Your task to perform on an android device: Go to Google Image 0: 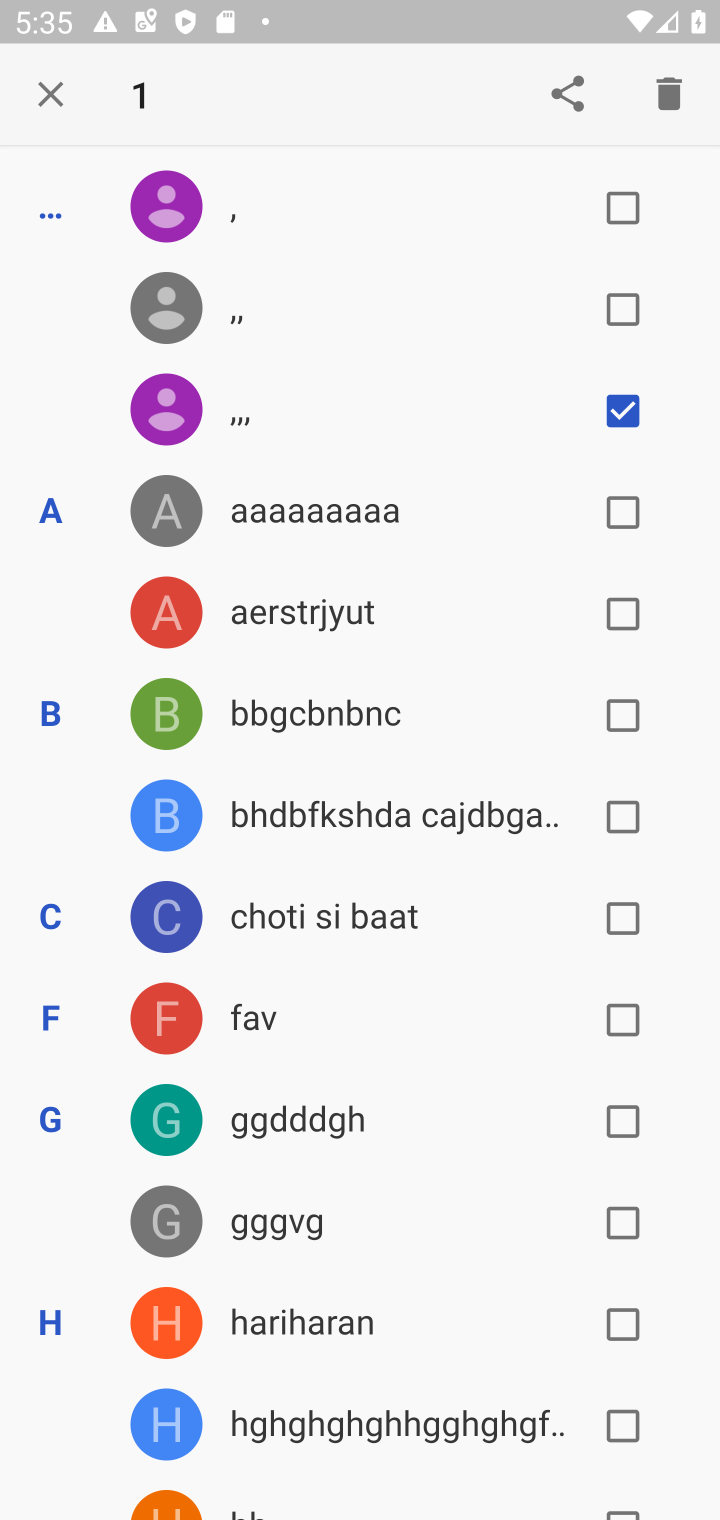
Step 0: press home button
Your task to perform on an android device: Go to Google Image 1: 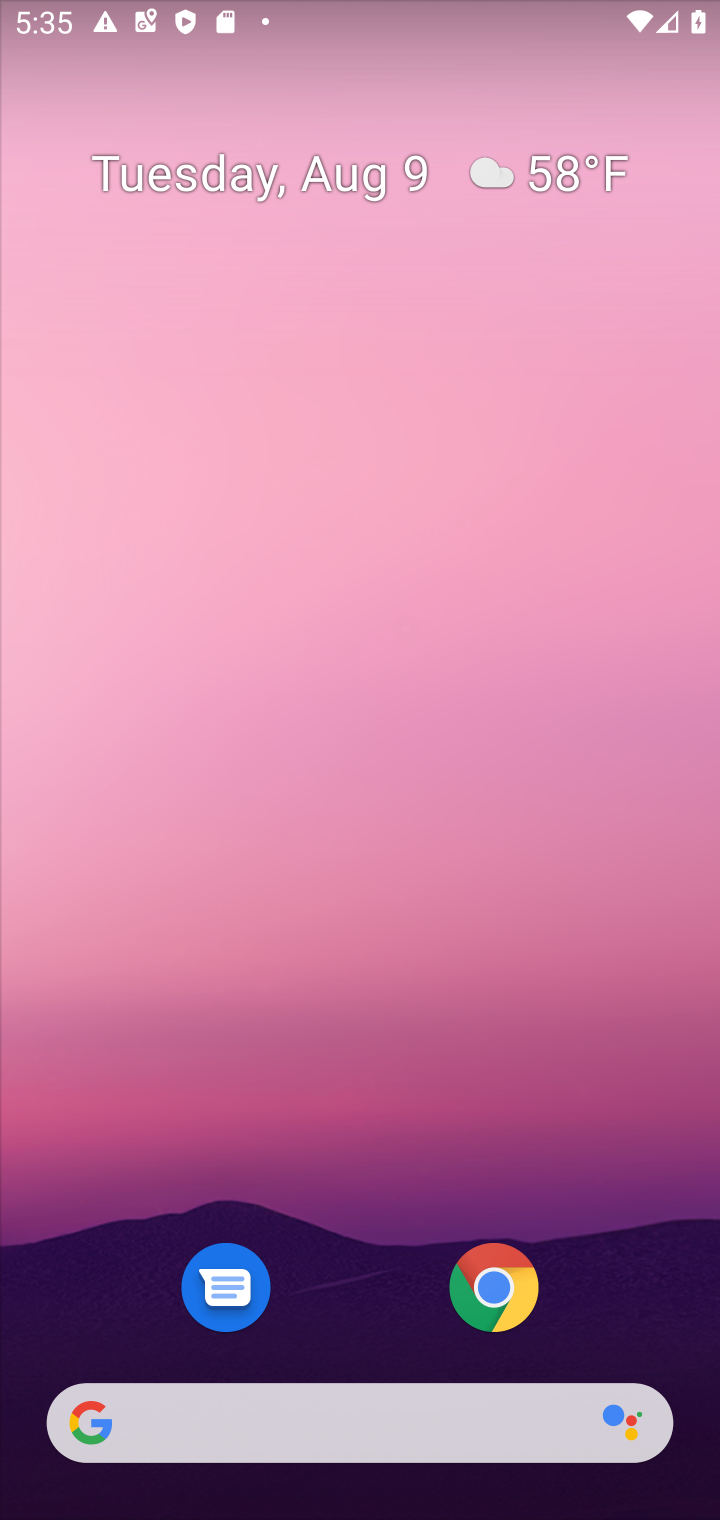
Step 1: click (319, 1437)
Your task to perform on an android device: Go to Google Image 2: 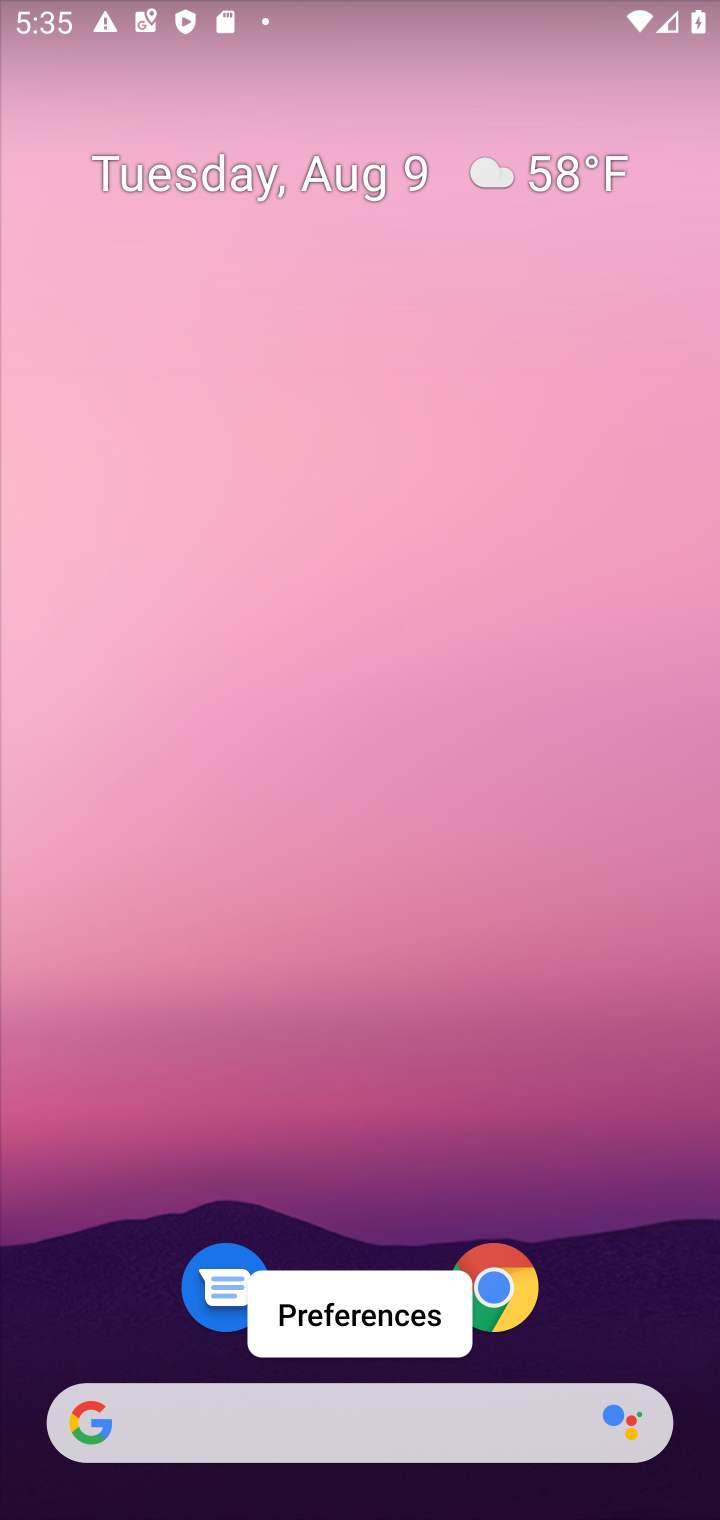
Step 2: click (525, 1440)
Your task to perform on an android device: Go to Google Image 3: 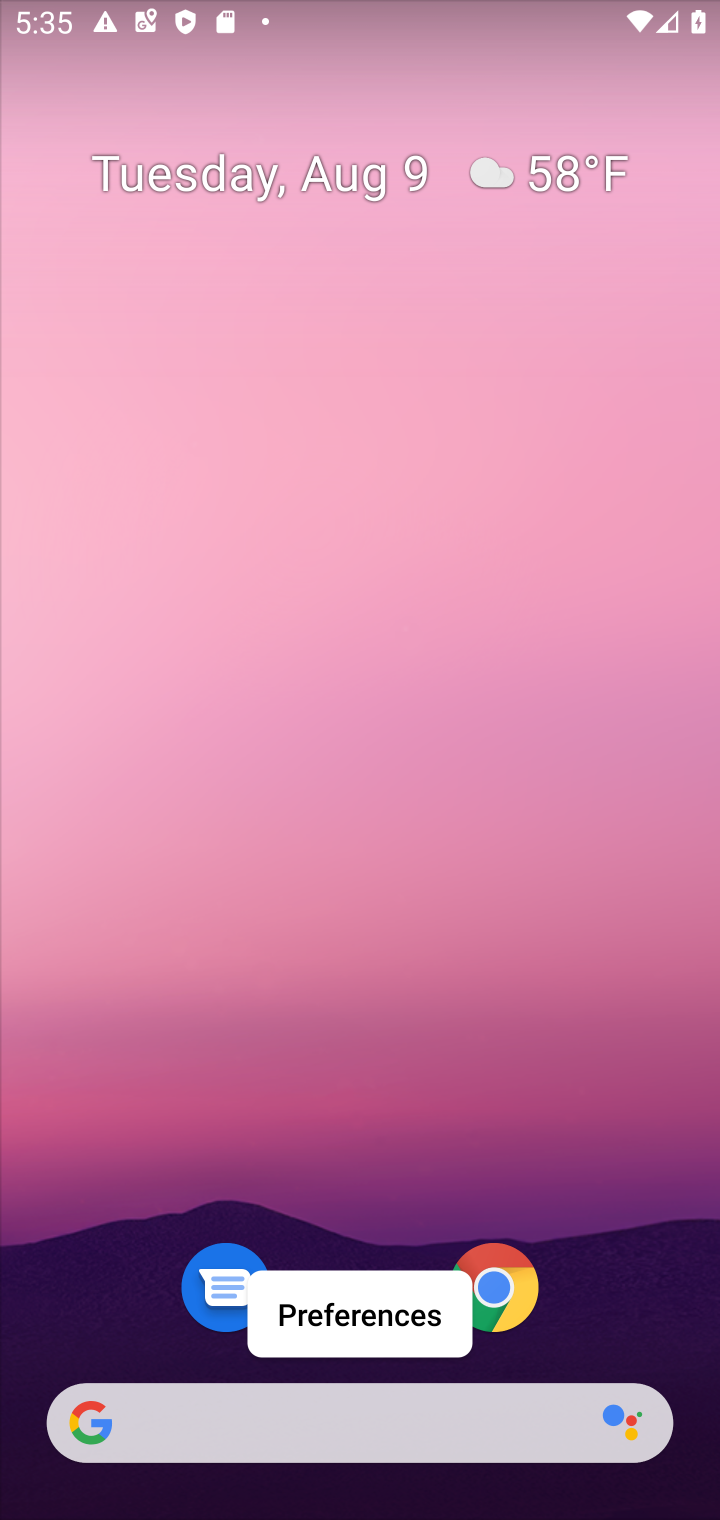
Step 3: click (479, 1410)
Your task to perform on an android device: Go to Google Image 4: 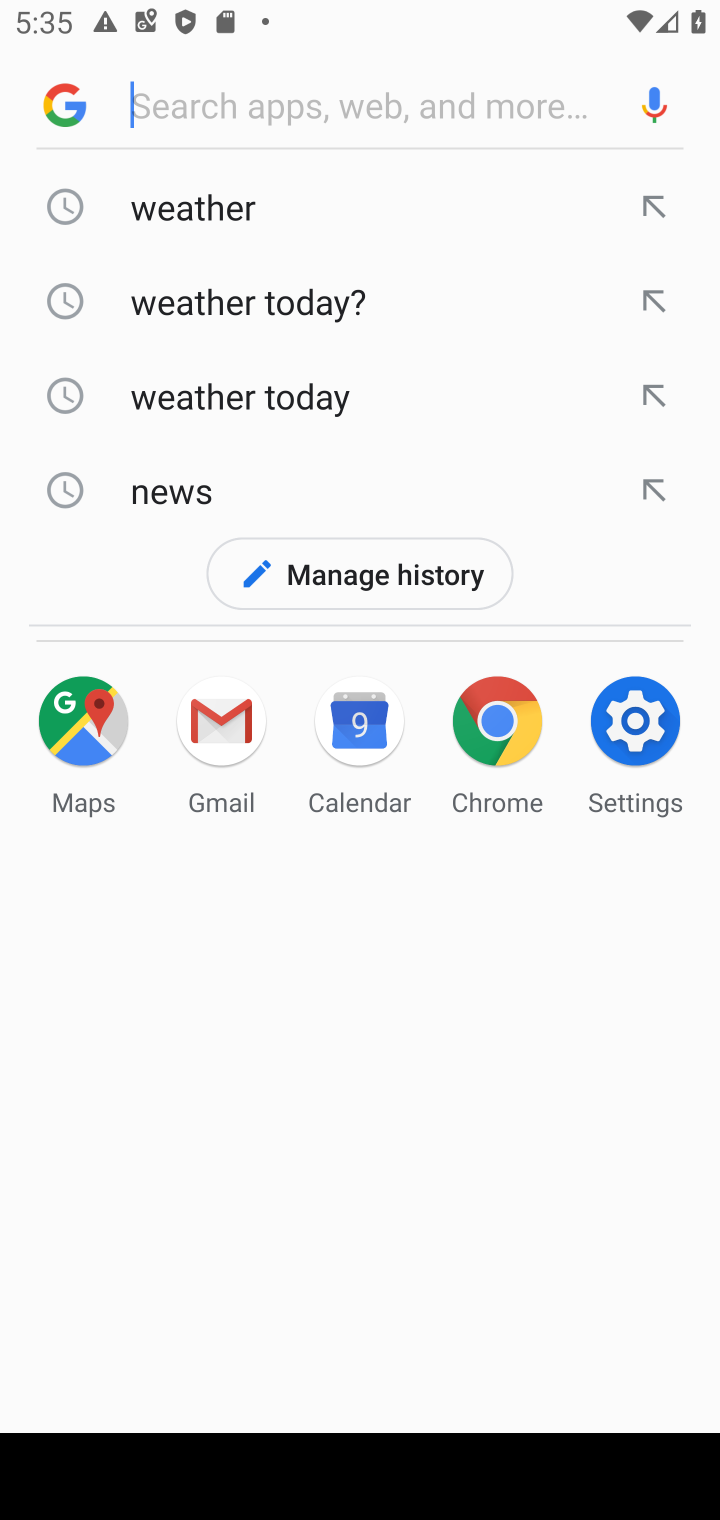
Step 4: task complete